Your task to perform on an android device: Show me recent news Image 0: 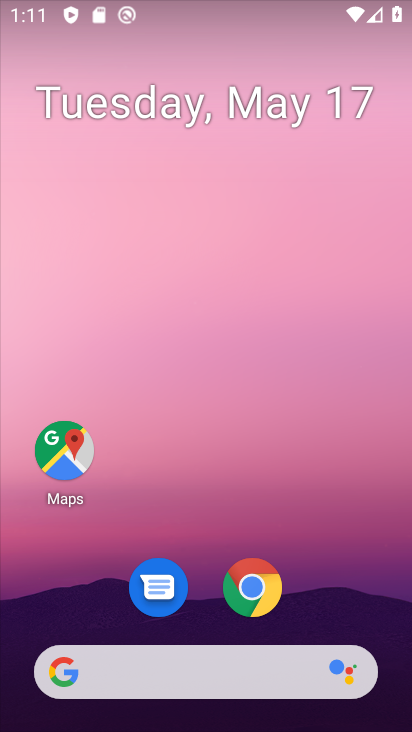
Step 0: drag from (335, 571) to (344, 179)
Your task to perform on an android device: Show me recent news Image 1: 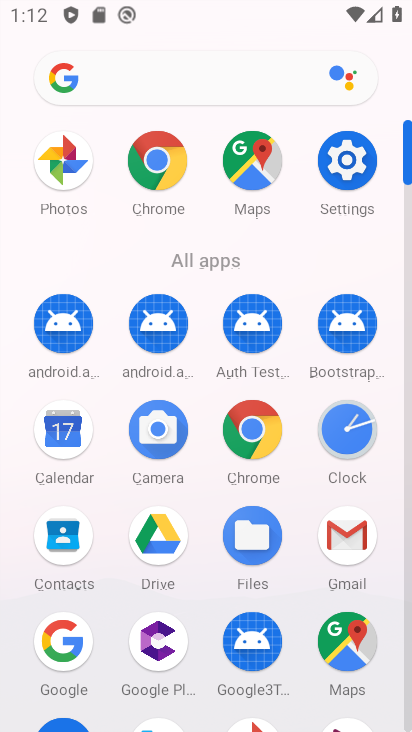
Step 1: click (147, 161)
Your task to perform on an android device: Show me recent news Image 2: 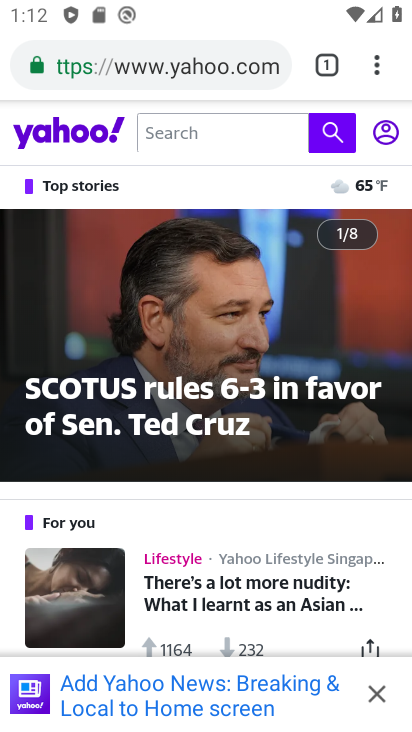
Step 2: click (214, 68)
Your task to perform on an android device: Show me recent news Image 3: 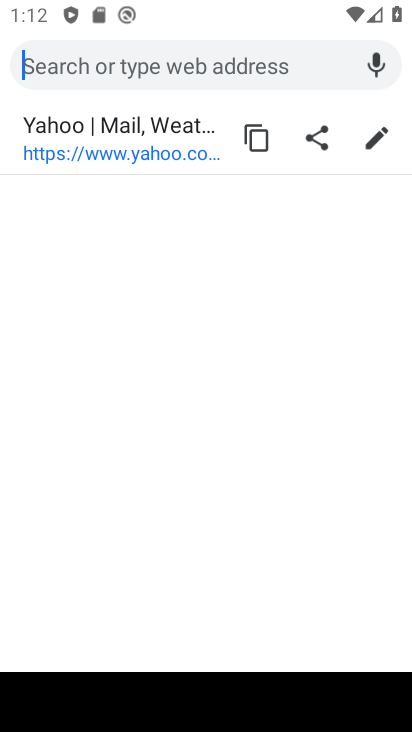
Step 3: type "recent news"
Your task to perform on an android device: Show me recent news Image 4: 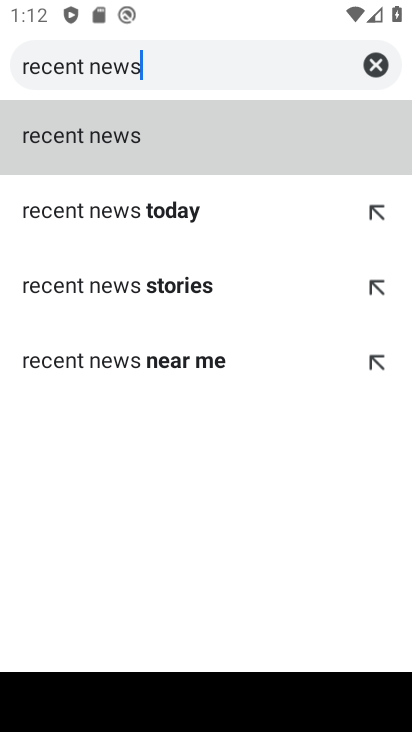
Step 4: click (192, 153)
Your task to perform on an android device: Show me recent news Image 5: 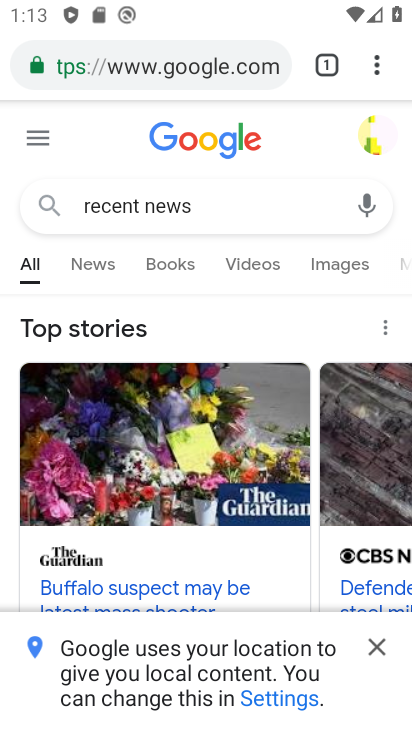
Step 5: task complete